Your task to perform on an android device: turn on translation in the chrome app Image 0: 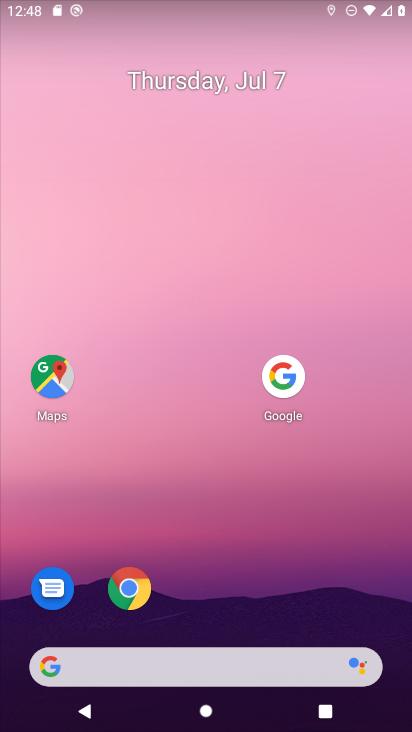
Step 0: click (131, 586)
Your task to perform on an android device: turn on translation in the chrome app Image 1: 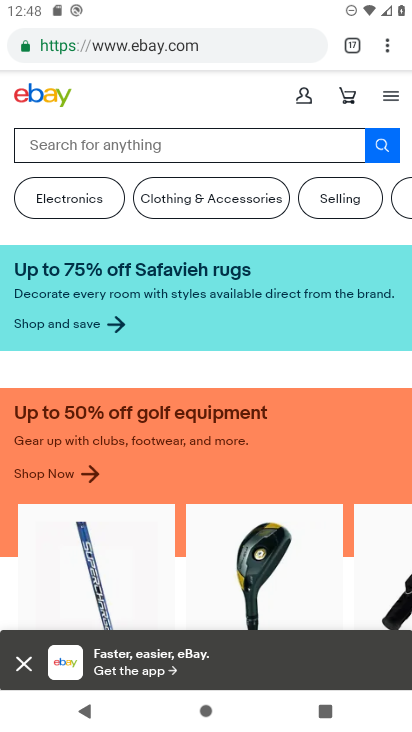
Step 1: drag from (386, 48) to (225, 545)
Your task to perform on an android device: turn on translation in the chrome app Image 2: 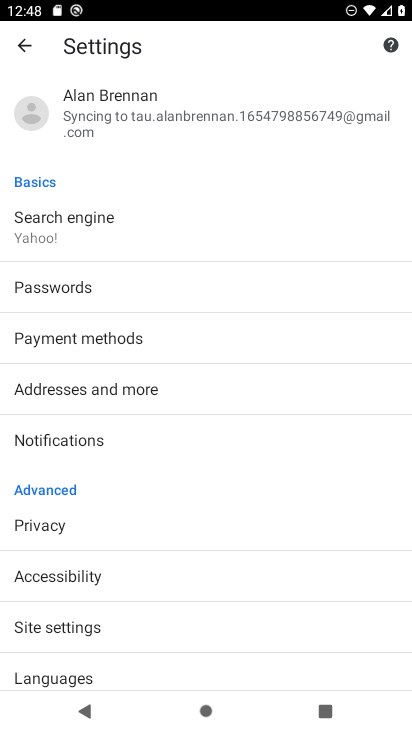
Step 2: drag from (162, 632) to (271, 263)
Your task to perform on an android device: turn on translation in the chrome app Image 3: 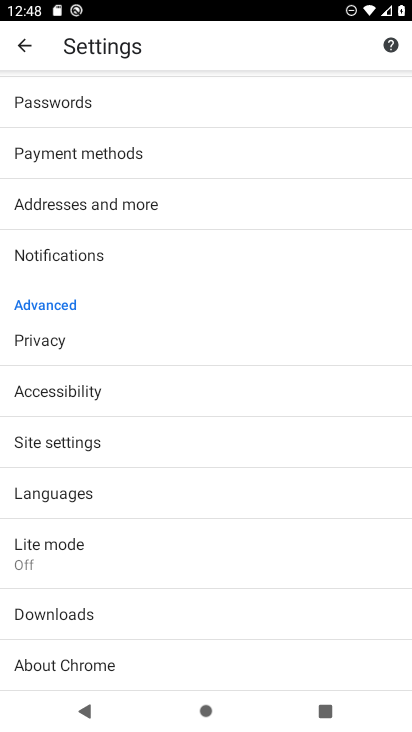
Step 3: click (60, 497)
Your task to perform on an android device: turn on translation in the chrome app Image 4: 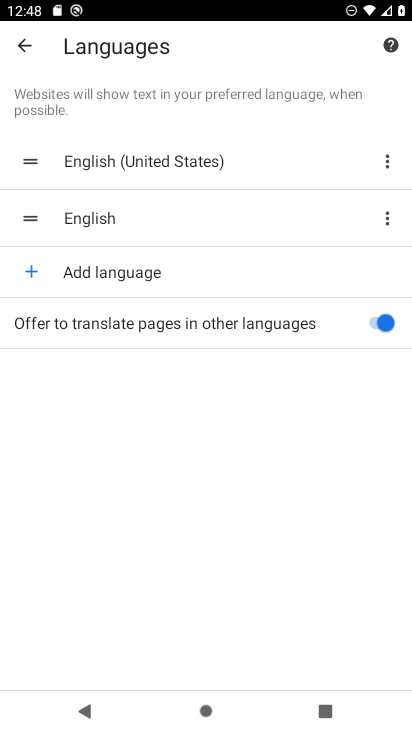
Step 4: task complete